Your task to perform on an android device: uninstall "PUBG MOBILE" Image 0: 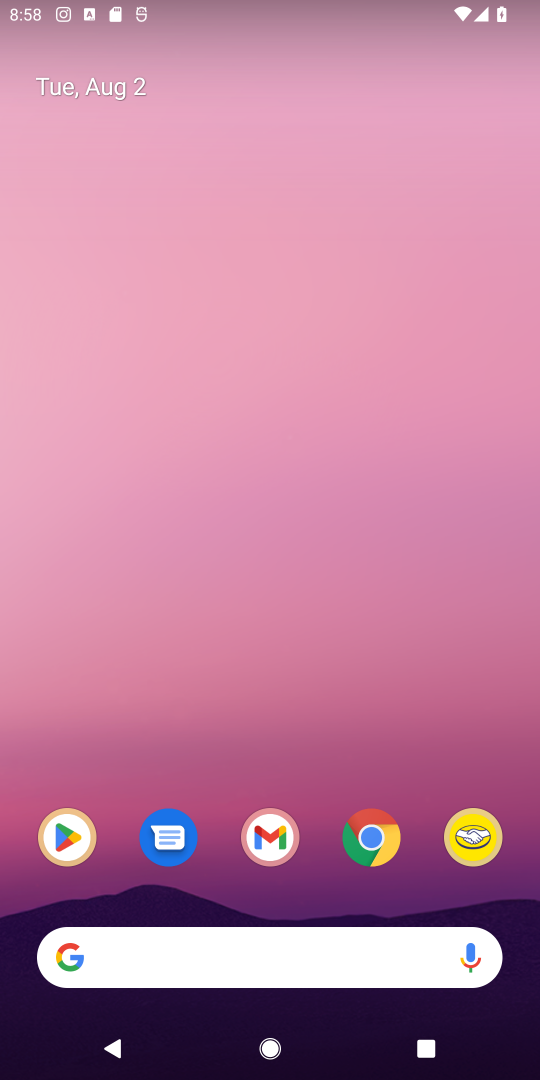
Step 0: click (63, 848)
Your task to perform on an android device: uninstall "PUBG MOBILE" Image 1: 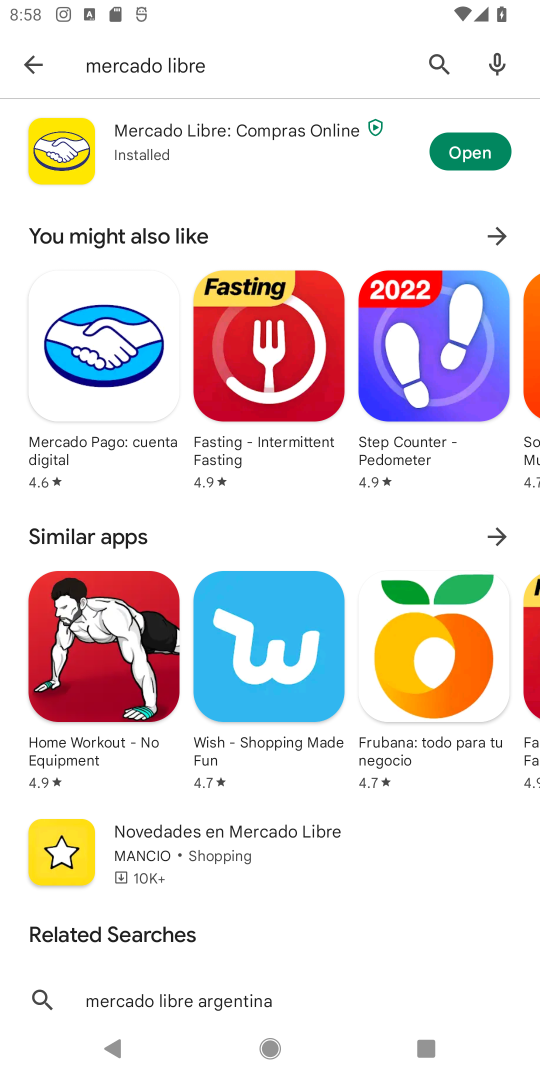
Step 1: click (439, 55)
Your task to perform on an android device: uninstall "PUBG MOBILE" Image 2: 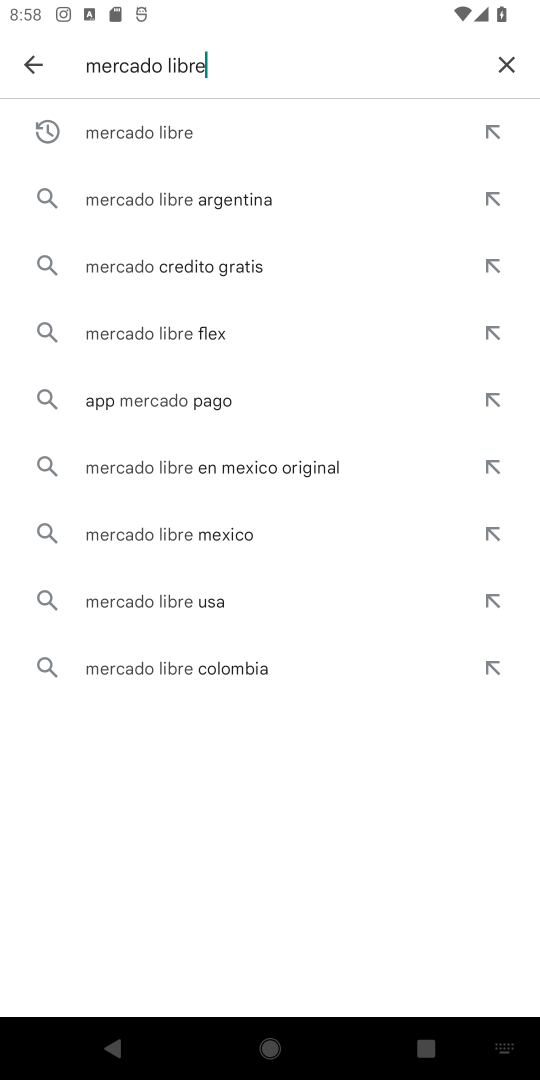
Step 2: click (501, 66)
Your task to perform on an android device: uninstall "PUBG MOBILE" Image 3: 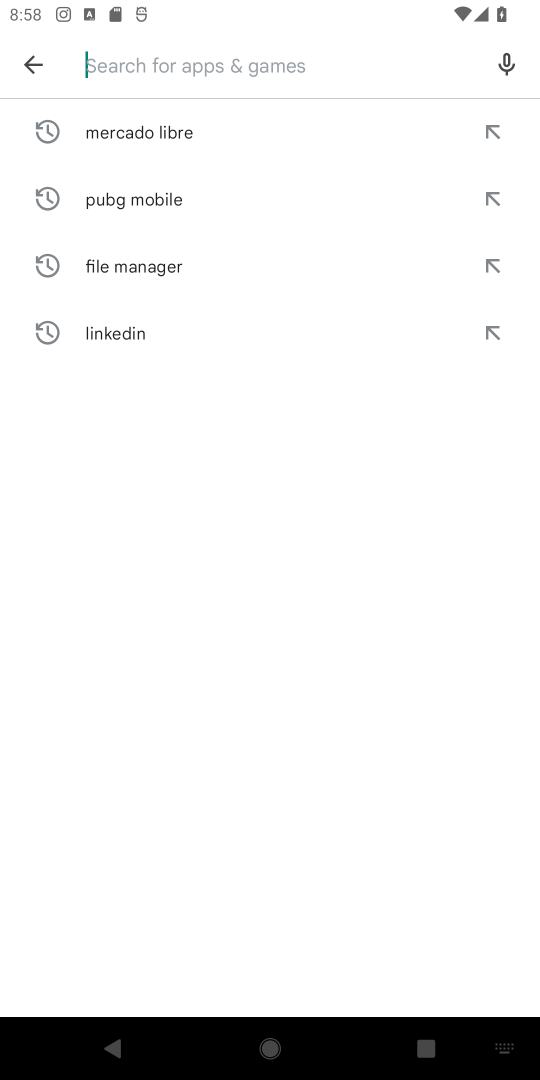
Step 3: type "PUBG MOBILE"
Your task to perform on an android device: uninstall "PUBG MOBILE" Image 4: 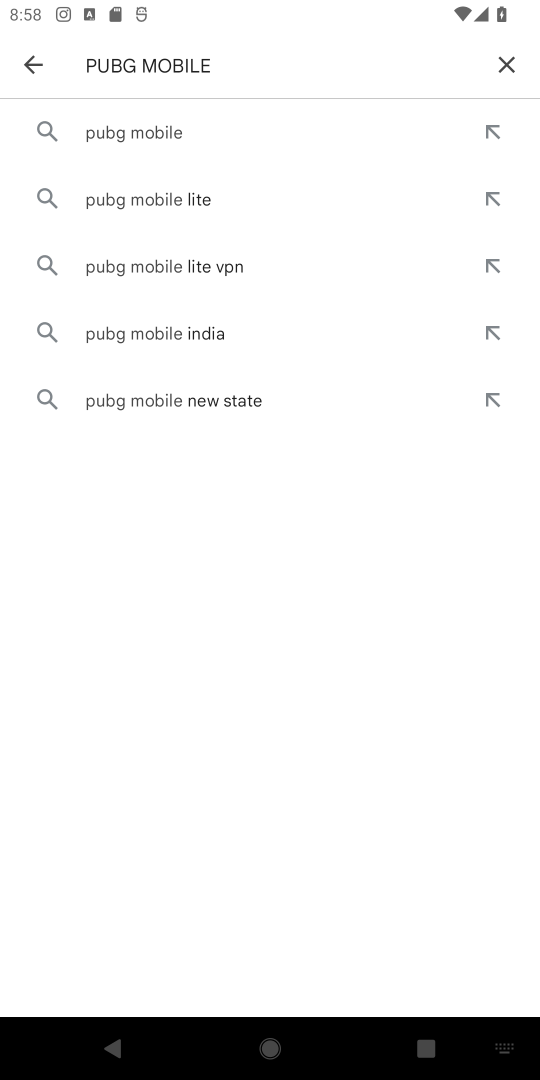
Step 4: click (137, 143)
Your task to perform on an android device: uninstall "PUBG MOBILE" Image 5: 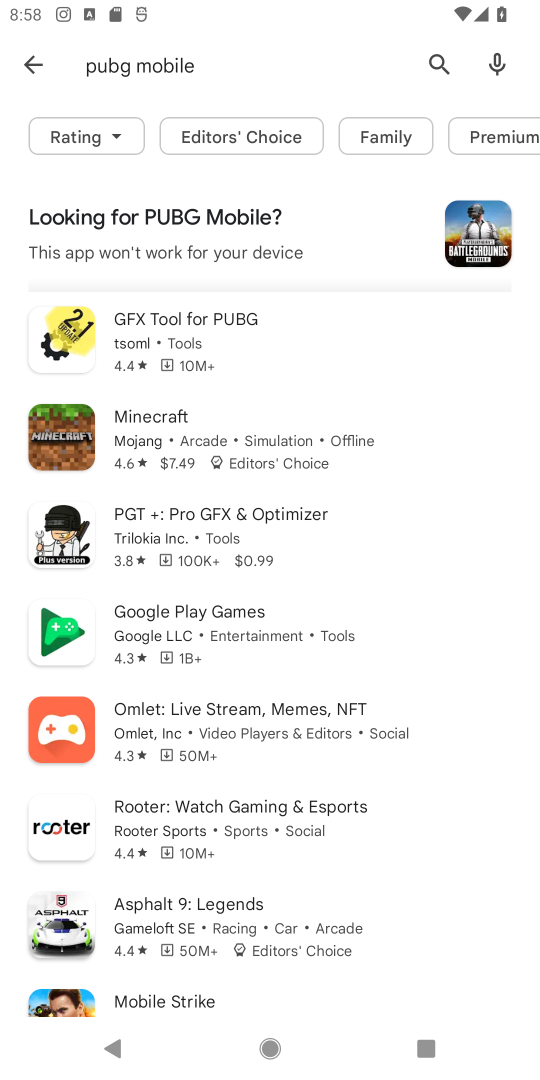
Step 5: task complete